Your task to perform on an android device: See recent photos Image 0: 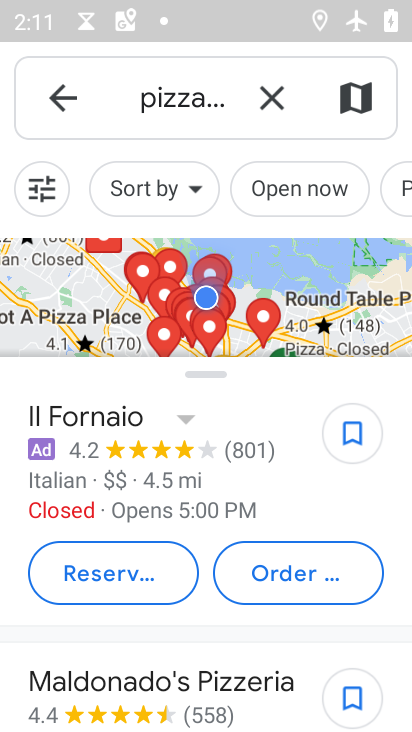
Step 0: press home button
Your task to perform on an android device: See recent photos Image 1: 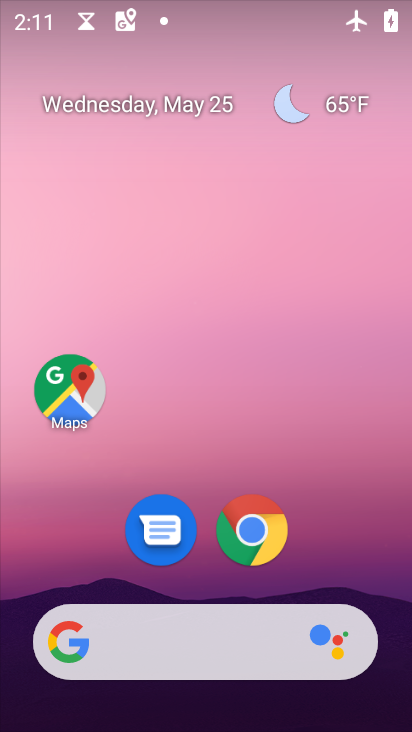
Step 1: drag from (244, 500) to (216, 270)
Your task to perform on an android device: See recent photos Image 2: 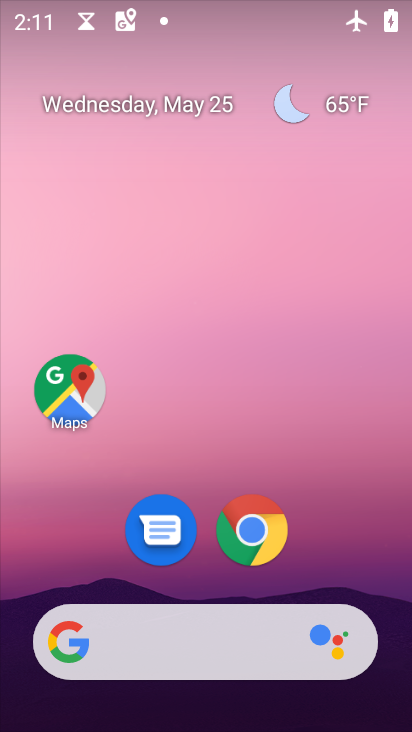
Step 2: drag from (195, 582) to (197, 260)
Your task to perform on an android device: See recent photos Image 3: 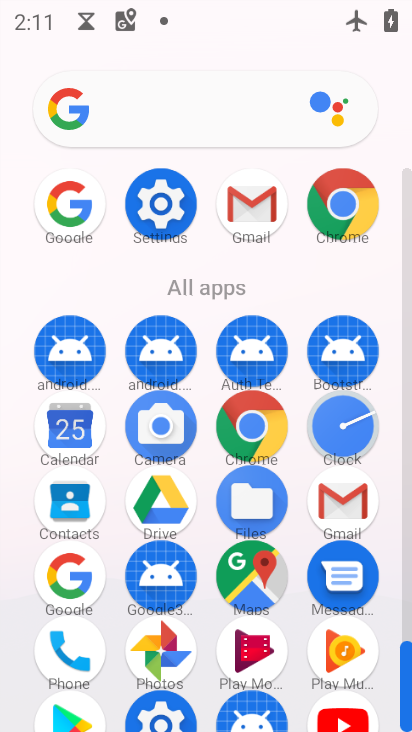
Step 3: click (156, 640)
Your task to perform on an android device: See recent photos Image 4: 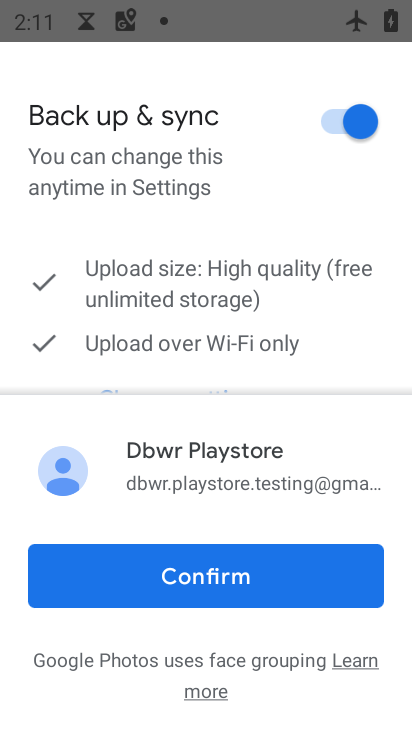
Step 4: click (189, 573)
Your task to perform on an android device: See recent photos Image 5: 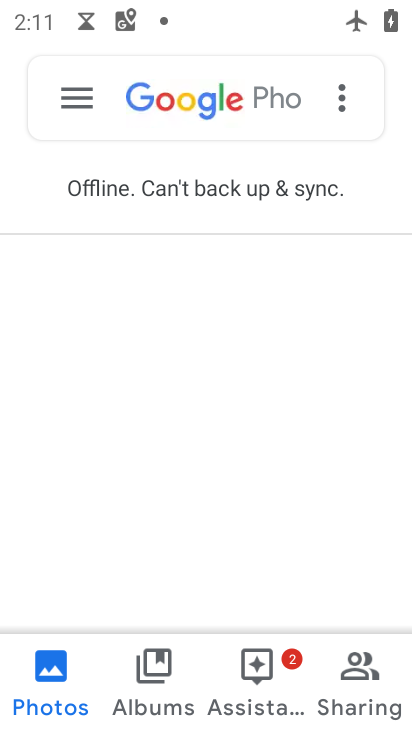
Step 5: click (147, 662)
Your task to perform on an android device: See recent photos Image 6: 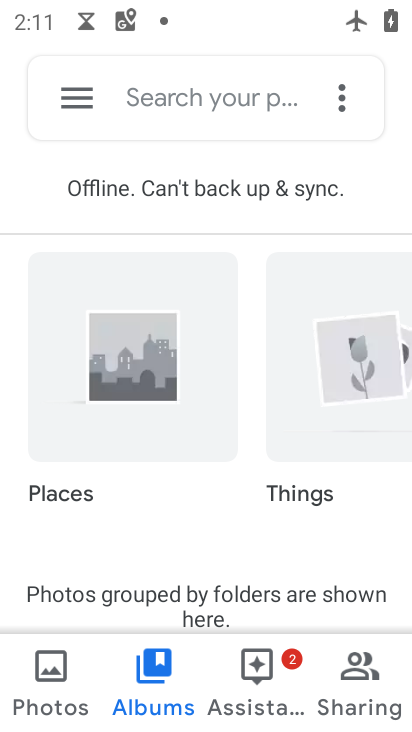
Step 6: click (57, 658)
Your task to perform on an android device: See recent photos Image 7: 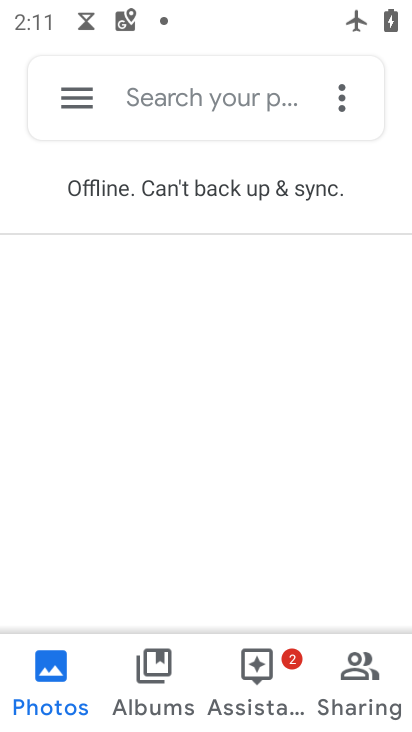
Step 7: task complete